Your task to perform on an android device: Go to Google maps Image 0: 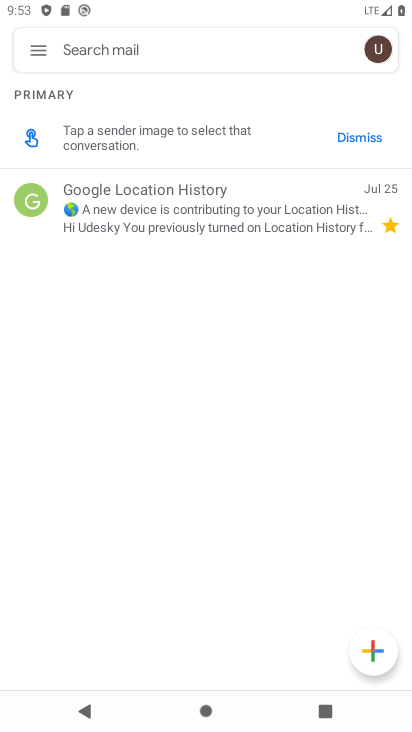
Step 0: press home button
Your task to perform on an android device: Go to Google maps Image 1: 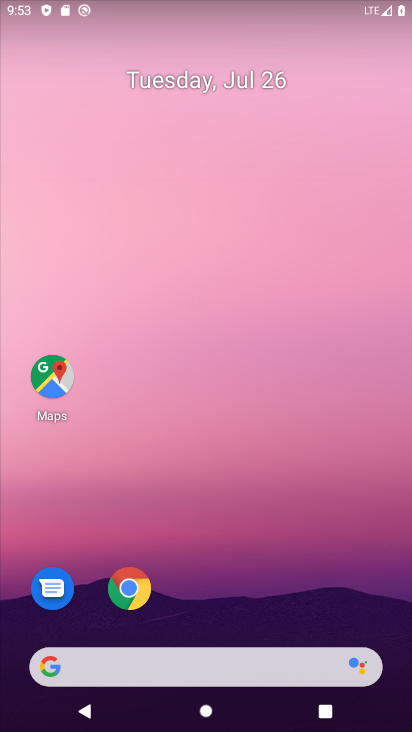
Step 1: drag from (230, 626) to (212, 253)
Your task to perform on an android device: Go to Google maps Image 2: 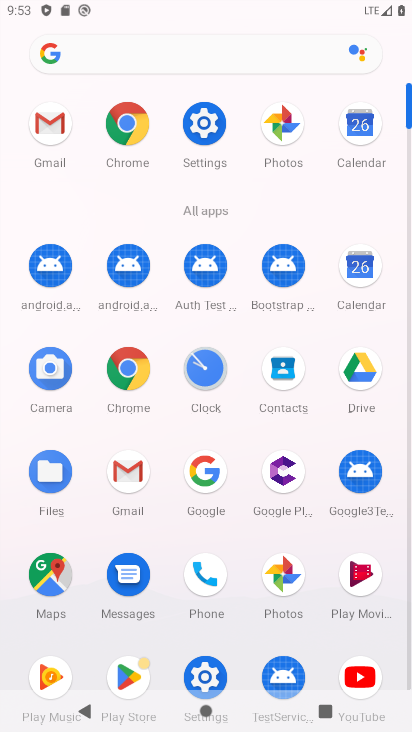
Step 2: click (67, 593)
Your task to perform on an android device: Go to Google maps Image 3: 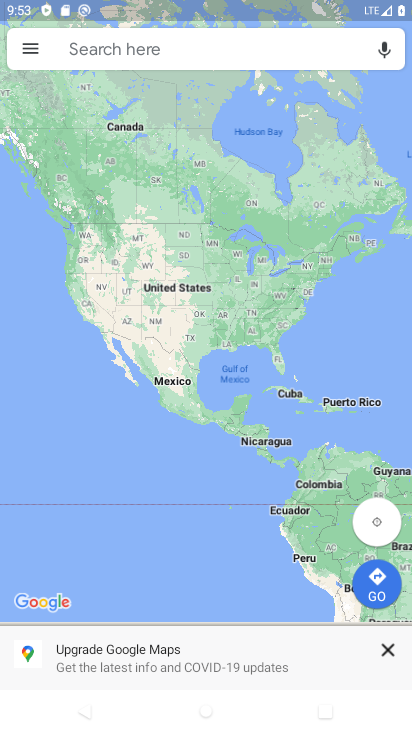
Step 3: task complete